Your task to perform on an android device: Go to display settings Image 0: 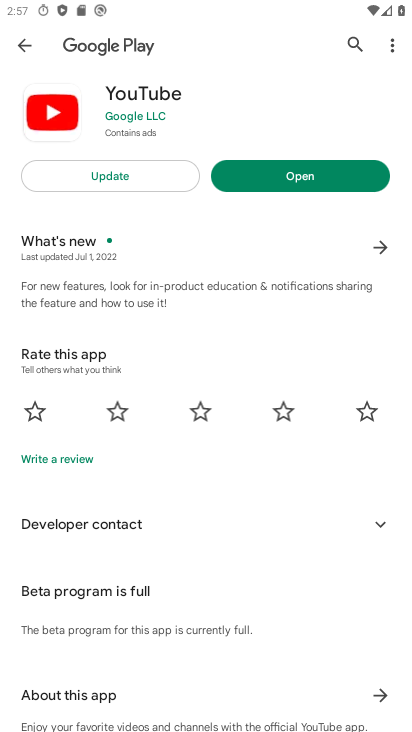
Step 0: press home button
Your task to perform on an android device: Go to display settings Image 1: 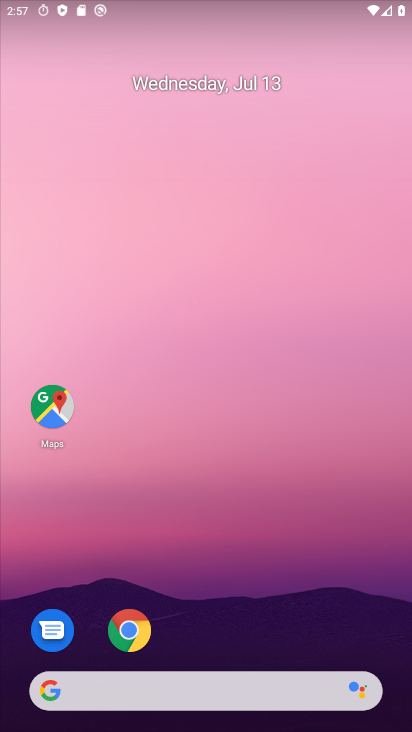
Step 1: drag from (86, 565) to (202, 177)
Your task to perform on an android device: Go to display settings Image 2: 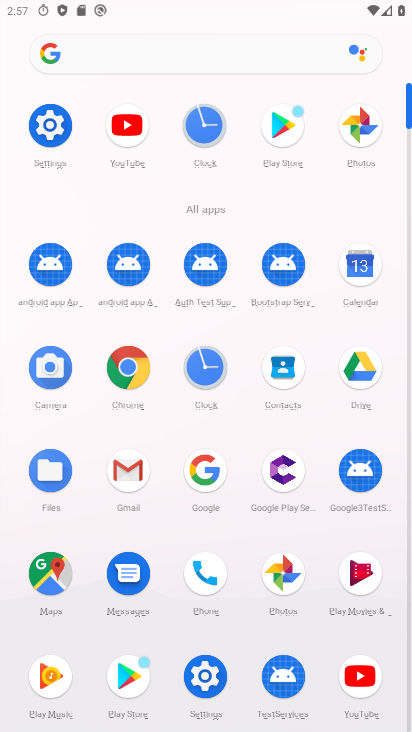
Step 2: click (189, 670)
Your task to perform on an android device: Go to display settings Image 3: 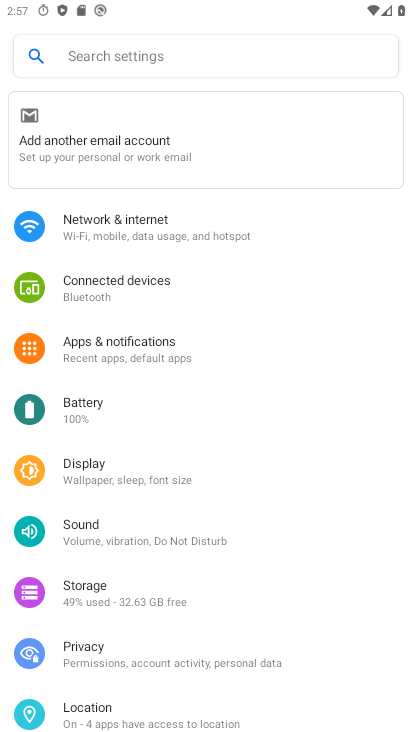
Step 3: click (111, 478)
Your task to perform on an android device: Go to display settings Image 4: 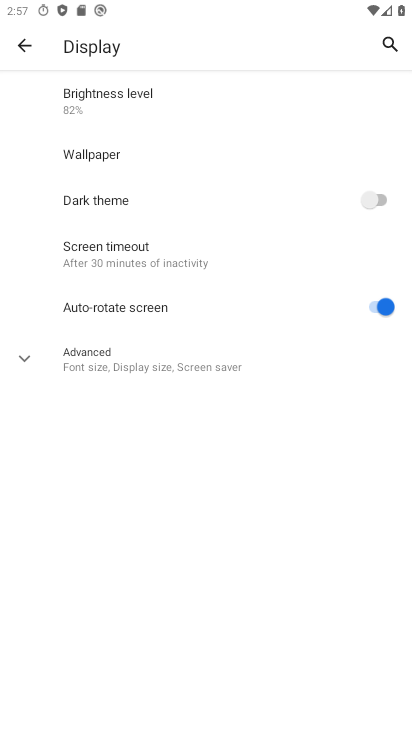
Step 4: task complete